Your task to perform on an android device: toggle improve location accuracy Image 0: 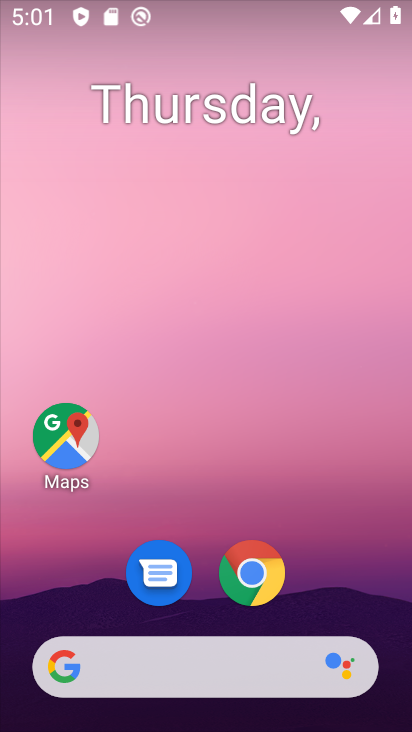
Step 0: drag from (299, 534) to (245, 70)
Your task to perform on an android device: toggle improve location accuracy Image 1: 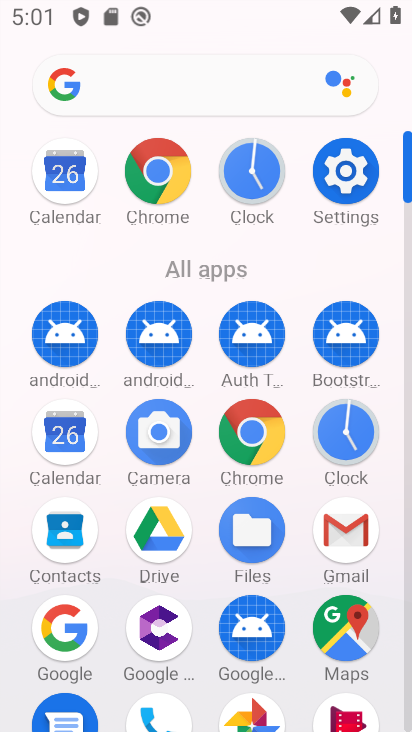
Step 1: drag from (20, 555) to (29, 262)
Your task to perform on an android device: toggle improve location accuracy Image 2: 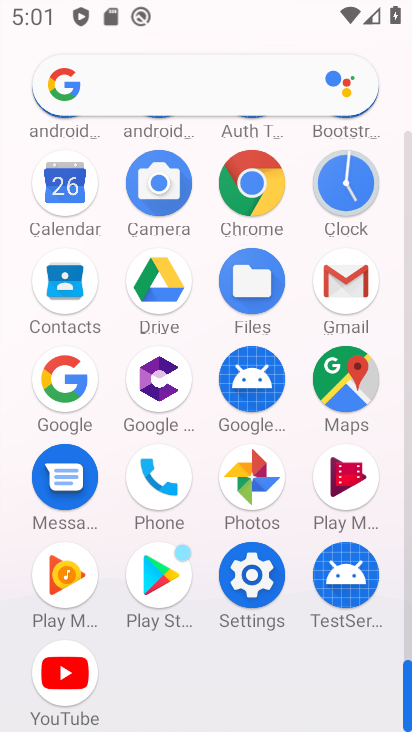
Step 2: click (251, 569)
Your task to perform on an android device: toggle improve location accuracy Image 3: 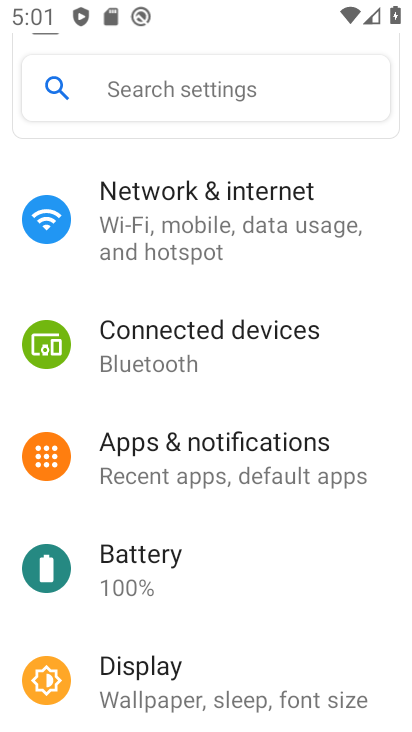
Step 3: drag from (308, 458) to (336, 203)
Your task to perform on an android device: toggle improve location accuracy Image 4: 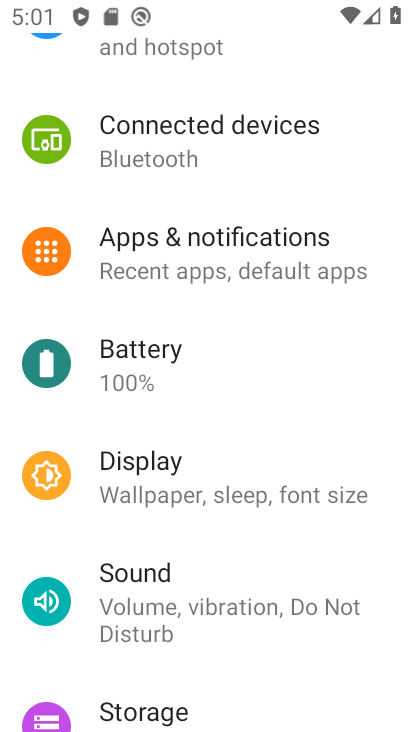
Step 4: drag from (260, 677) to (258, 192)
Your task to perform on an android device: toggle improve location accuracy Image 5: 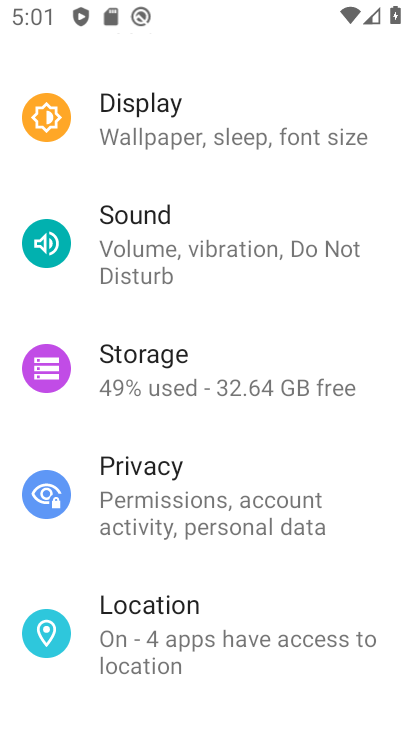
Step 5: drag from (279, 596) to (300, 281)
Your task to perform on an android device: toggle improve location accuracy Image 6: 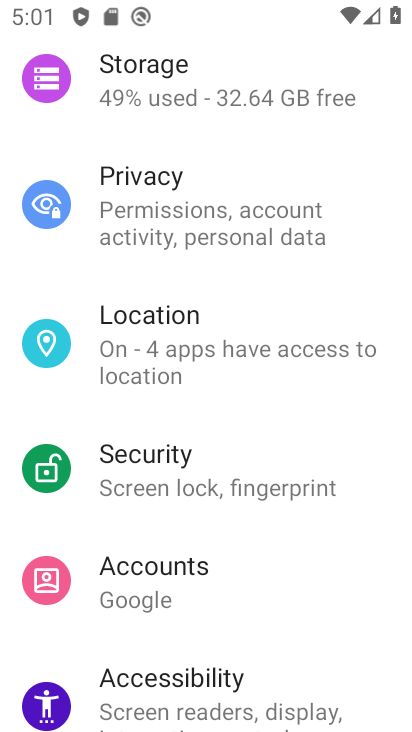
Step 6: click (257, 314)
Your task to perform on an android device: toggle improve location accuracy Image 7: 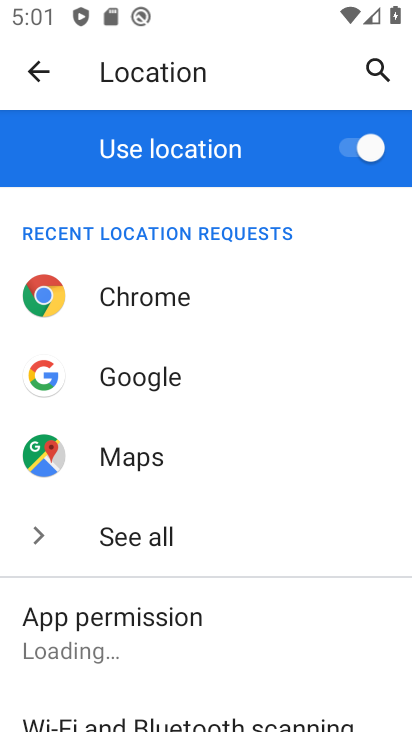
Step 7: drag from (254, 630) to (242, 164)
Your task to perform on an android device: toggle improve location accuracy Image 8: 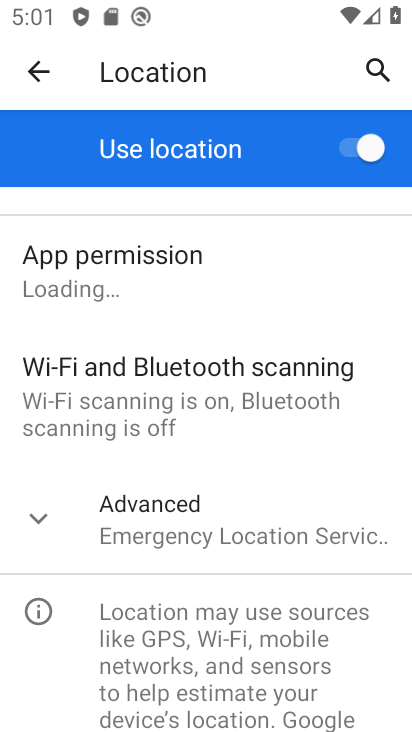
Step 8: click (190, 527)
Your task to perform on an android device: toggle improve location accuracy Image 9: 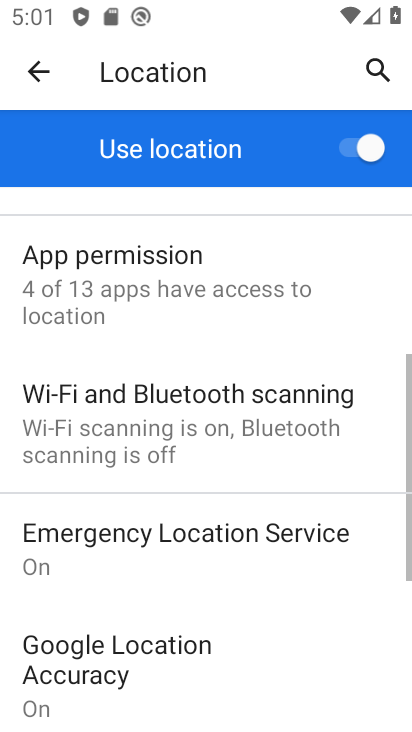
Step 9: drag from (269, 600) to (287, 200)
Your task to perform on an android device: toggle improve location accuracy Image 10: 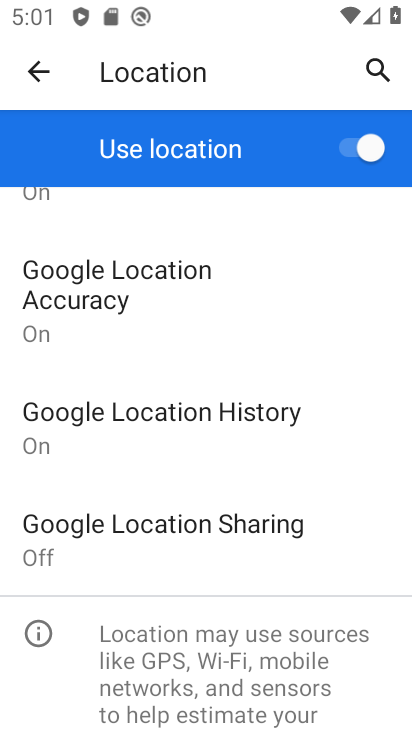
Step 10: click (135, 317)
Your task to perform on an android device: toggle improve location accuracy Image 11: 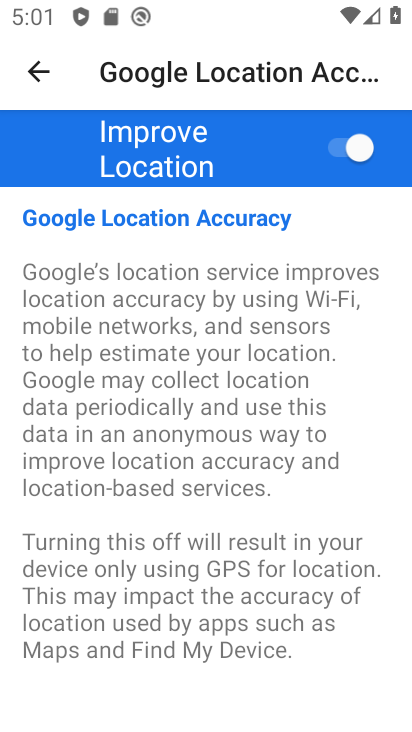
Step 11: click (342, 137)
Your task to perform on an android device: toggle improve location accuracy Image 12: 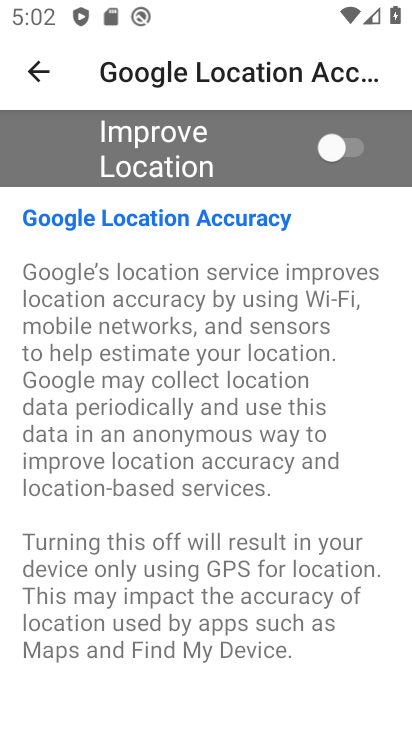
Step 12: task complete